Your task to perform on an android device: Set the phone to "Do not disturb". Image 0: 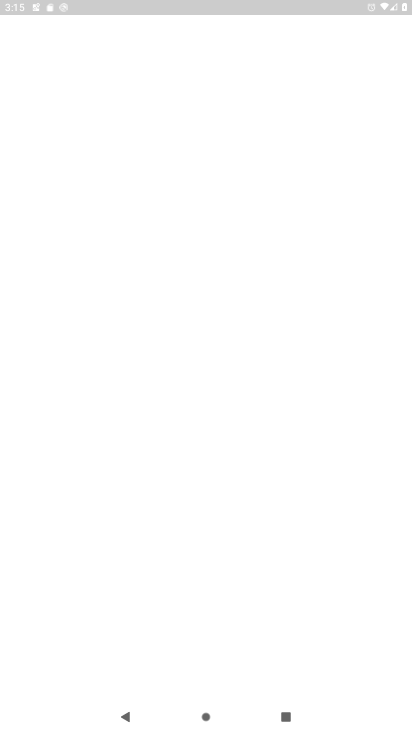
Step 0: click (144, 614)
Your task to perform on an android device: Set the phone to "Do not disturb". Image 1: 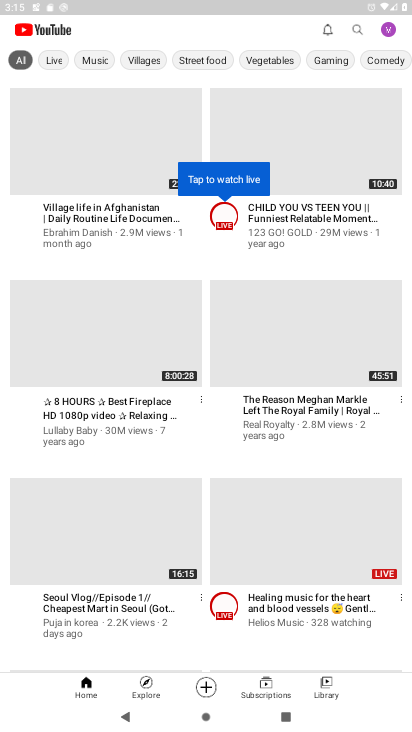
Step 1: press home button
Your task to perform on an android device: Set the phone to "Do not disturb". Image 2: 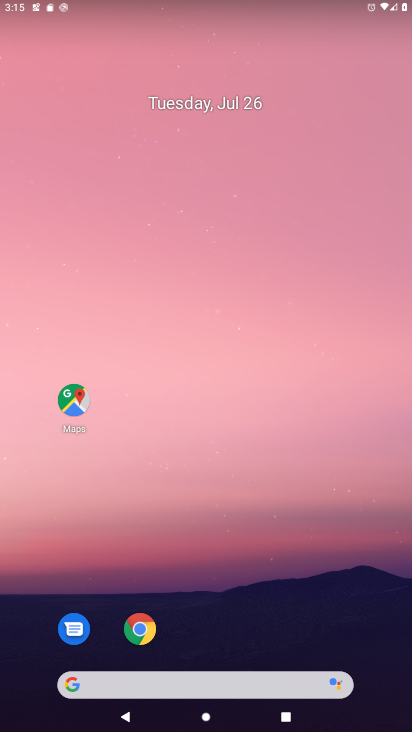
Step 2: drag from (206, 633) to (175, 209)
Your task to perform on an android device: Set the phone to "Do not disturb". Image 3: 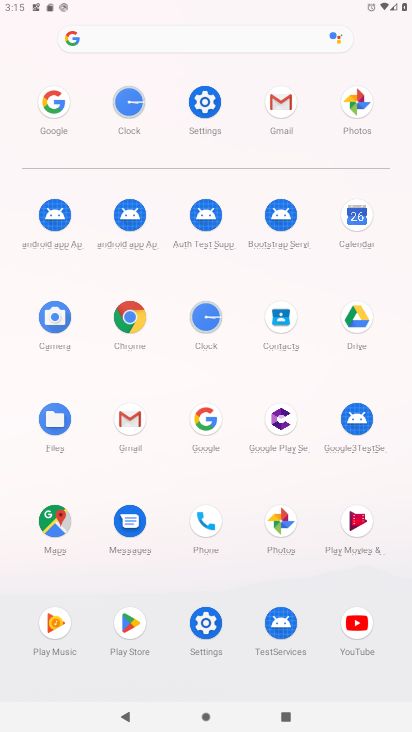
Step 3: click (219, 102)
Your task to perform on an android device: Set the phone to "Do not disturb". Image 4: 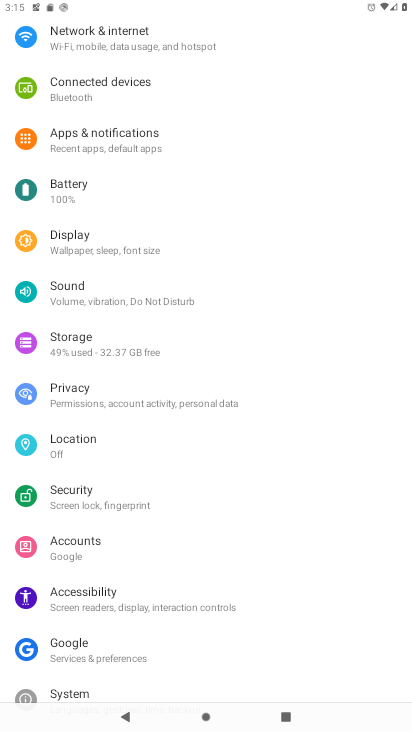
Step 4: click (73, 308)
Your task to perform on an android device: Set the phone to "Do not disturb". Image 5: 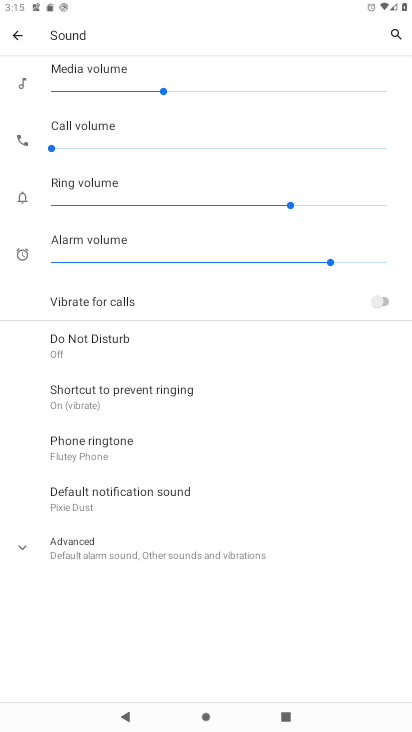
Step 5: click (110, 349)
Your task to perform on an android device: Set the phone to "Do not disturb". Image 6: 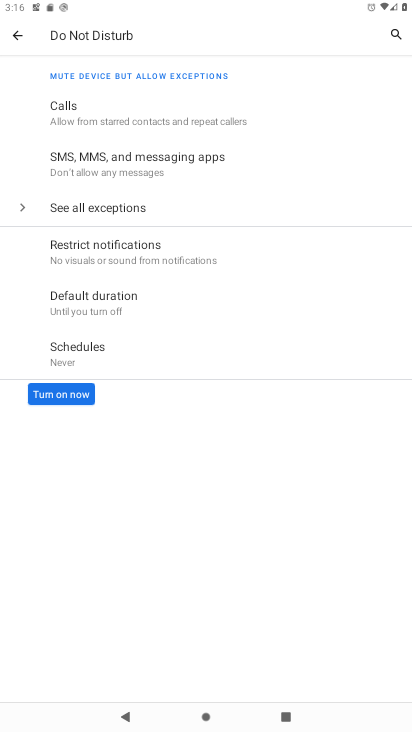
Step 6: click (138, 354)
Your task to perform on an android device: Set the phone to "Do not disturb". Image 7: 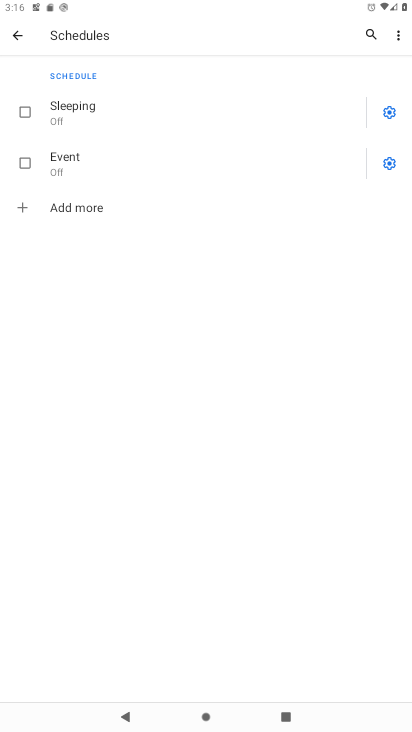
Step 7: click (16, 45)
Your task to perform on an android device: Set the phone to "Do not disturb". Image 8: 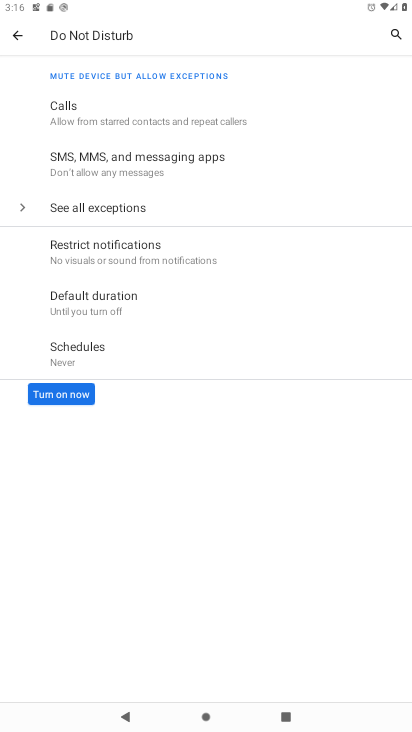
Step 8: click (86, 393)
Your task to perform on an android device: Set the phone to "Do not disturb". Image 9: 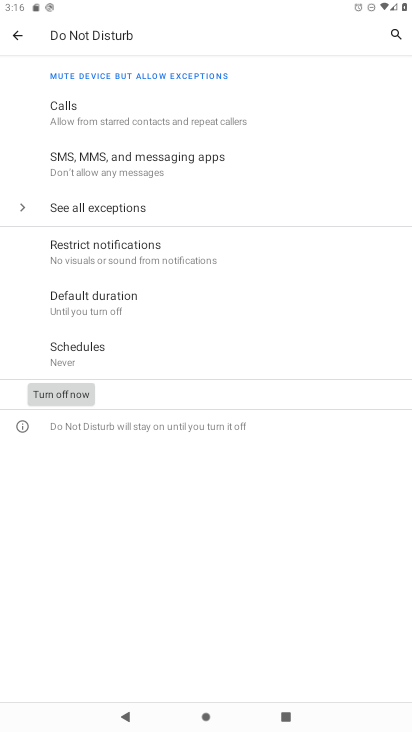
Step 9: task complete